Your task to perform on an android device: Show me popular videos on Youtube Image 0: 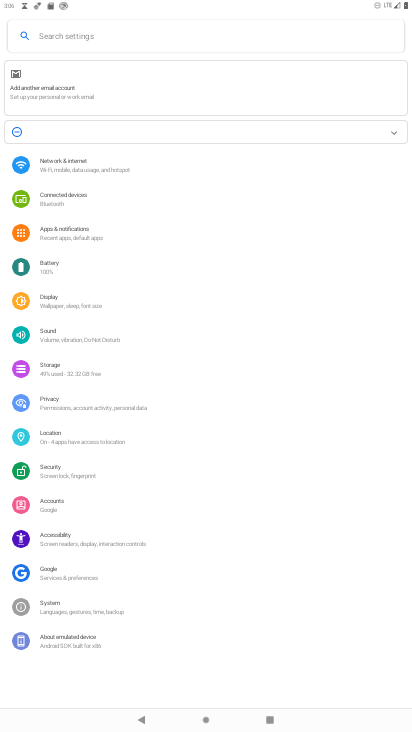
Step 0: press home button
Your task to perform on an android device: Show me popular videos on Youtube Image 1: 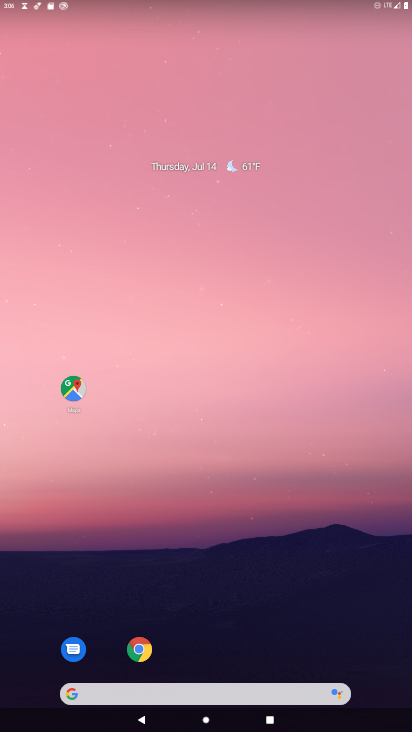
Step 1: drag from (178, 627) to (380, 4)
Your task to perform on an android device: Show me popular videos on Youtube Image 2: 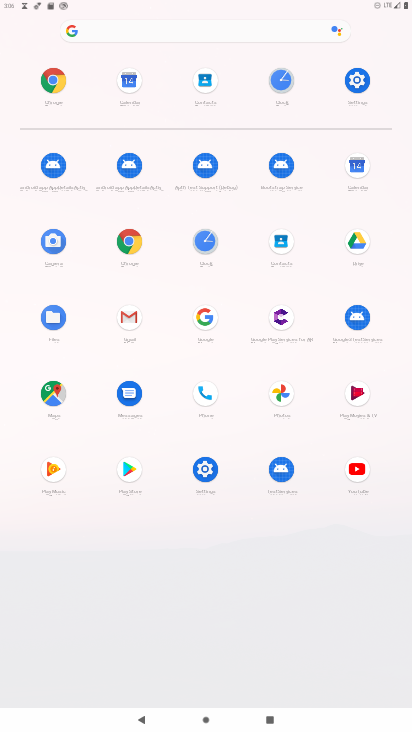
Step 2: click (356, 471)
Your task to perform on an android device: Show me popular videos on Youtube Image 3: 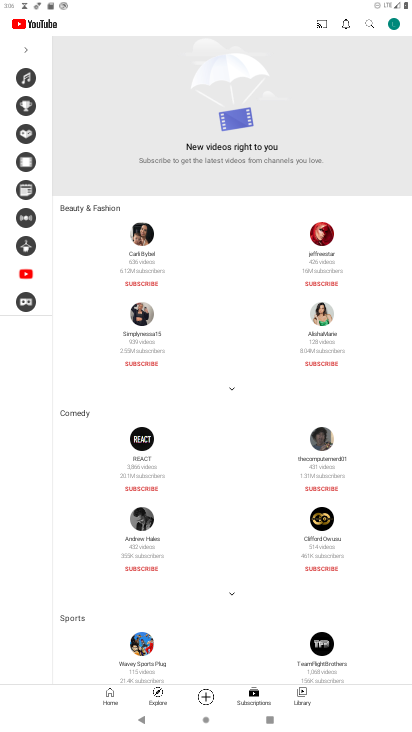
Step 3: click (124, 694)
Your task to perform on an android device: Show me popular videos on Youtube Image 4: 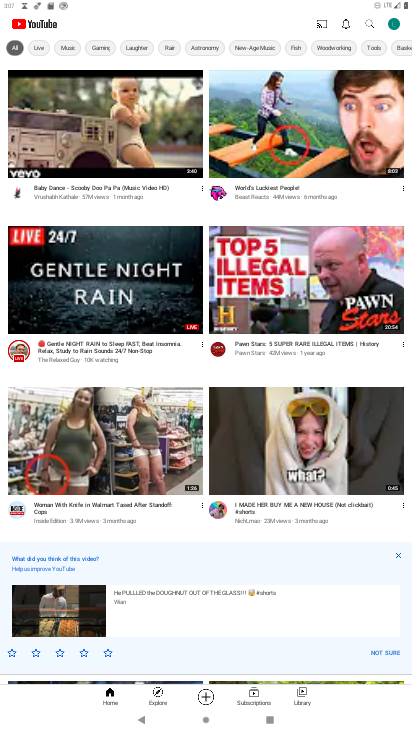
Step 4: task complete